Your task to perform on an android device: Do I have any events this weekend? Image 0: 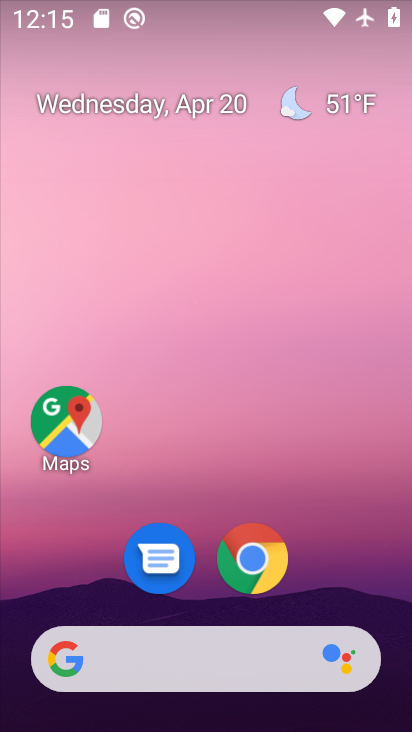
Step 0: drag from (384, 599) to (322, 186)
Your task to perform on an android device: Do I have any events this weekend? Image 1: 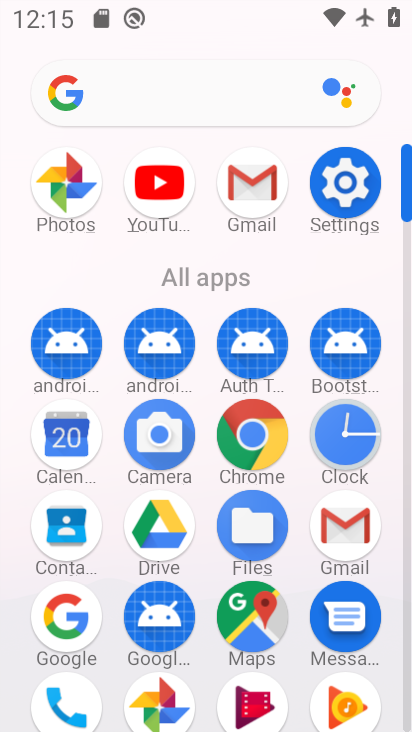
Step 1: click (407, 691)
Your task to perform on an android device: Do I have any events this weekend? Image 2: 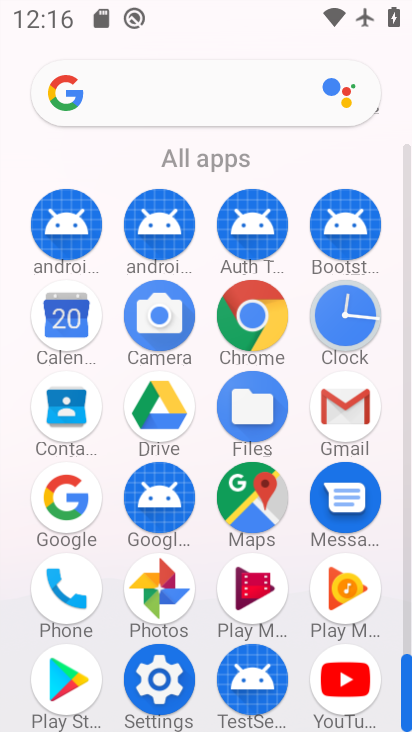
Step 2: click (59, 315)
Your task to perform on an android device: Do I have any events this weekend? Image 3: 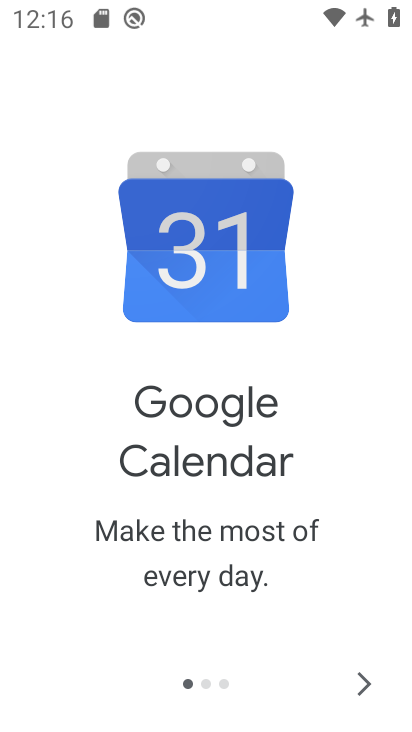
Step 3: click (359, 686)
Your task to perform on an android device: Do I have any events this weekend? Image 4: 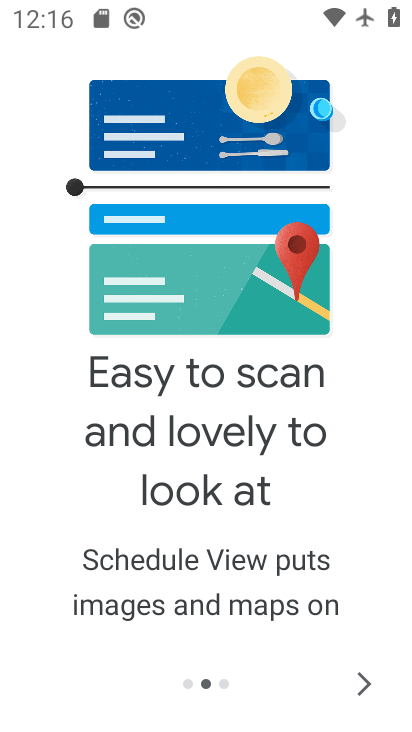
Step 4: click (359, 686)
Your task to perform on an android device: Do I have any events this weekend? Image 5: 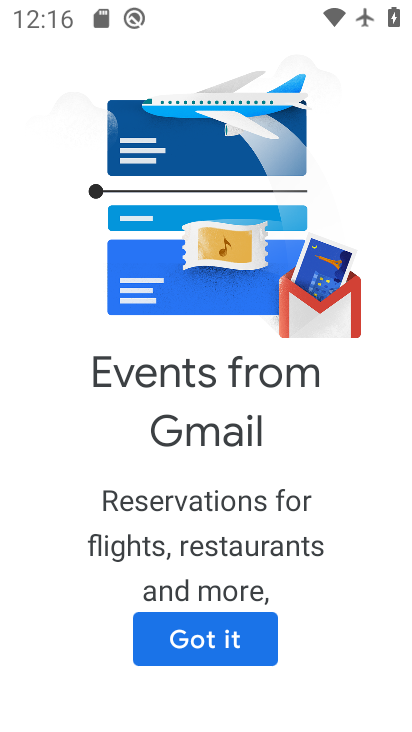
Step 5: click (195, 637)
Your task to perform on an android device: Do I have any events this weekend? Image 6: 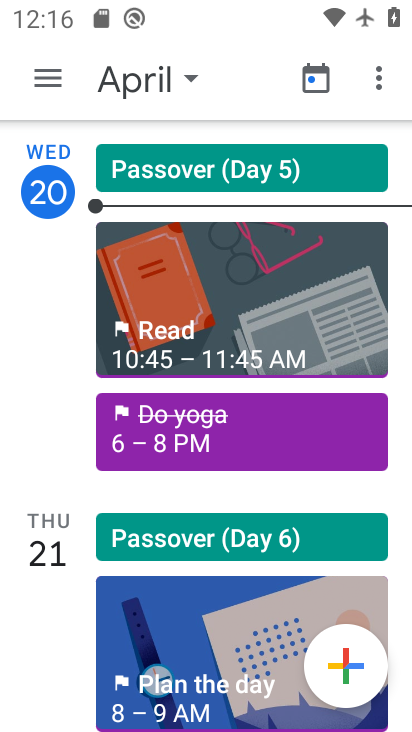
Step 6: click (34, 71)
Your task to perform on an android device: Do I have any events this weekend? Image 7: 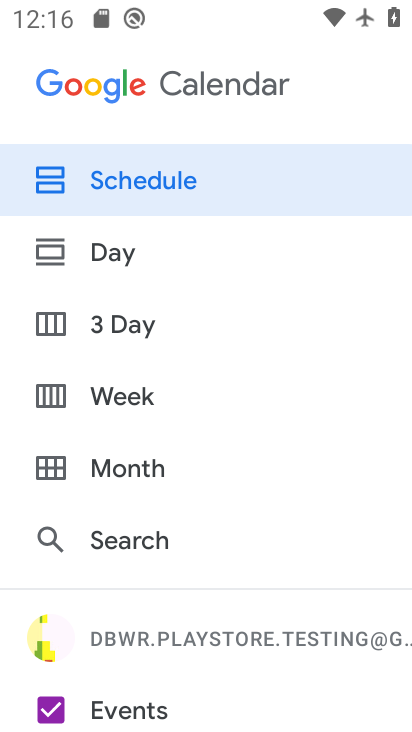
Step 7: click (118, 398)
Your task to perform on an android device: Do I have any events this weekend? Image 8: 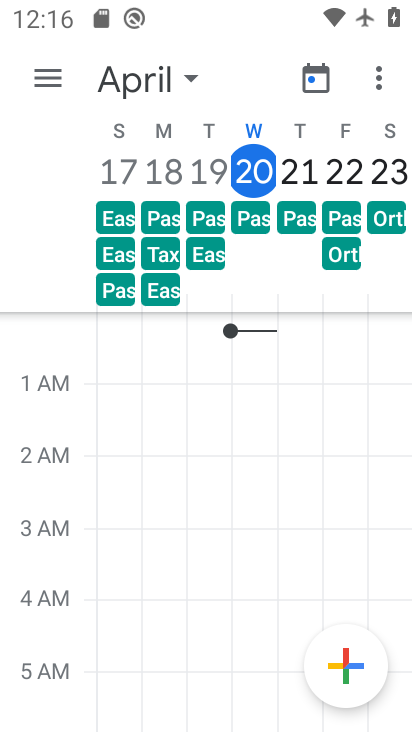
Step 8: task complete